Your task to perform on an android device: What is the capital of France? Image 0: 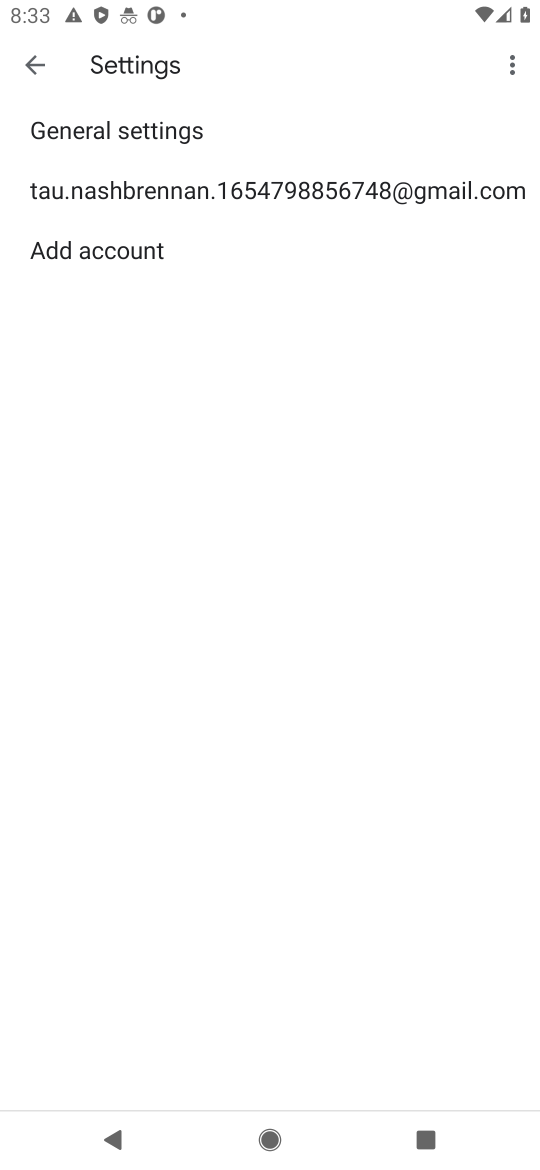
Step 0: press home button
Your task to perform on an android device: What is the capital of France? Image 1: 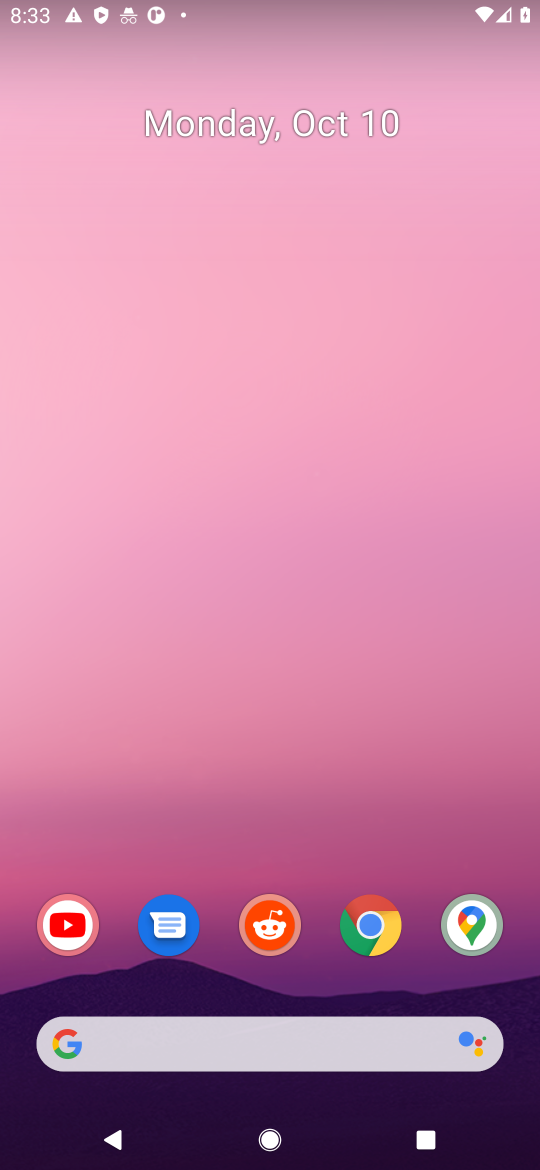
Step 1: drag from (331, 921) to (290, 196)
Your task to perform on an android device: What is the capital of France? Image 2: 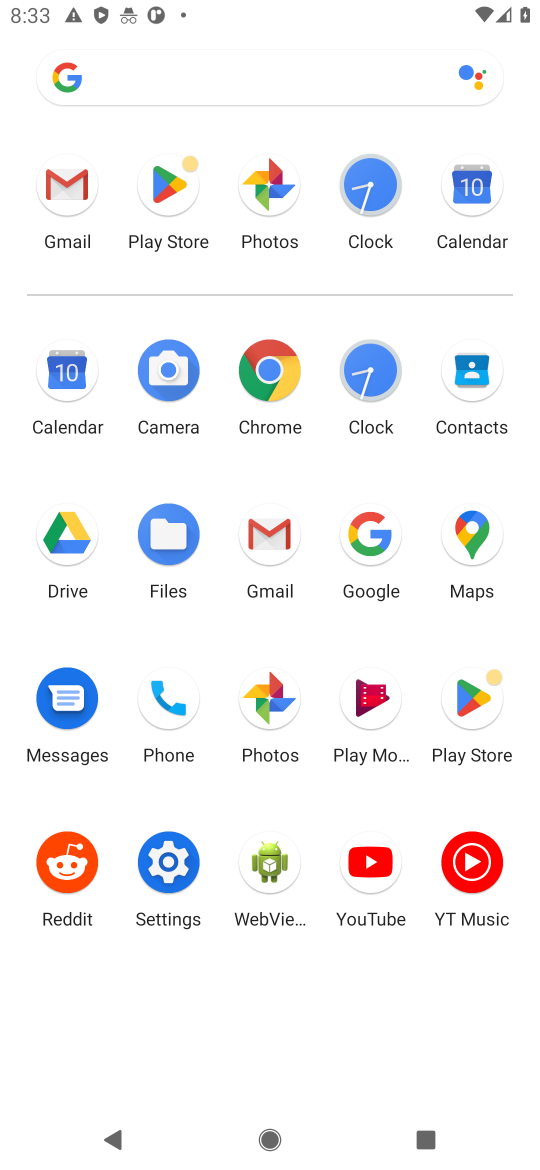
Step 2: click (271, 384)
Your task to perform on an android device: What is the capital of France? Image 3: 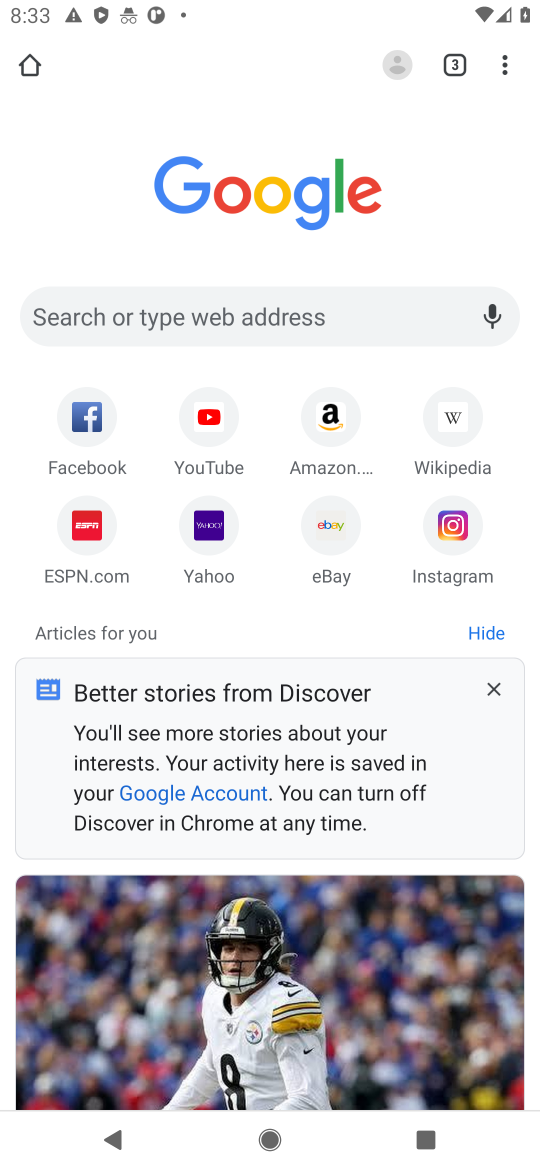
Step 3: click (316, 298)
Your task to perform on an android device: What is the capital of France? Image 4: 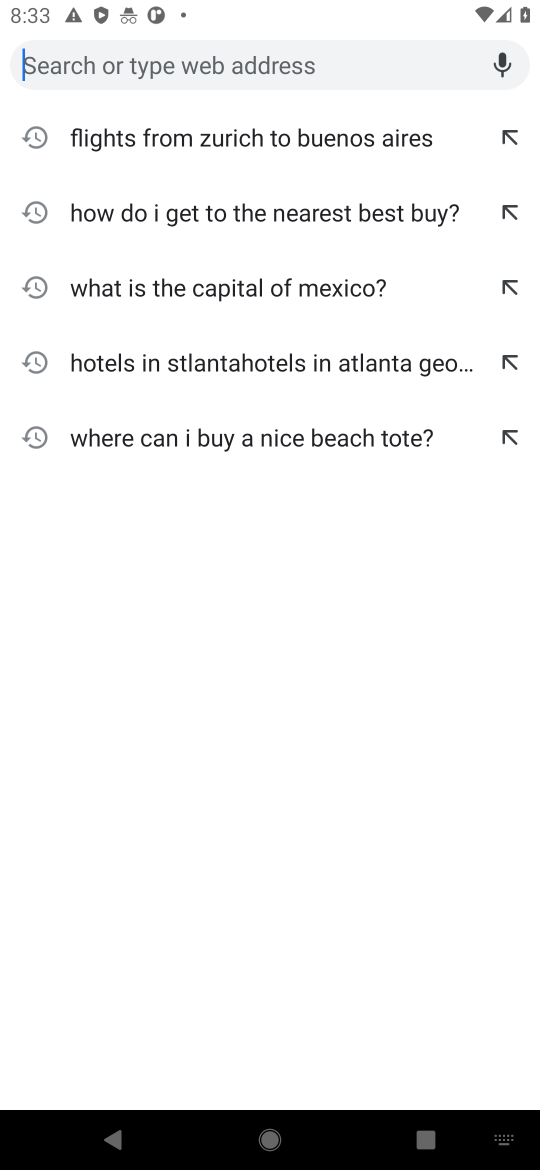
Step 4: type "What is the capital of France?"
Your task to perform on an android device: What is the capital of France? Image 5: 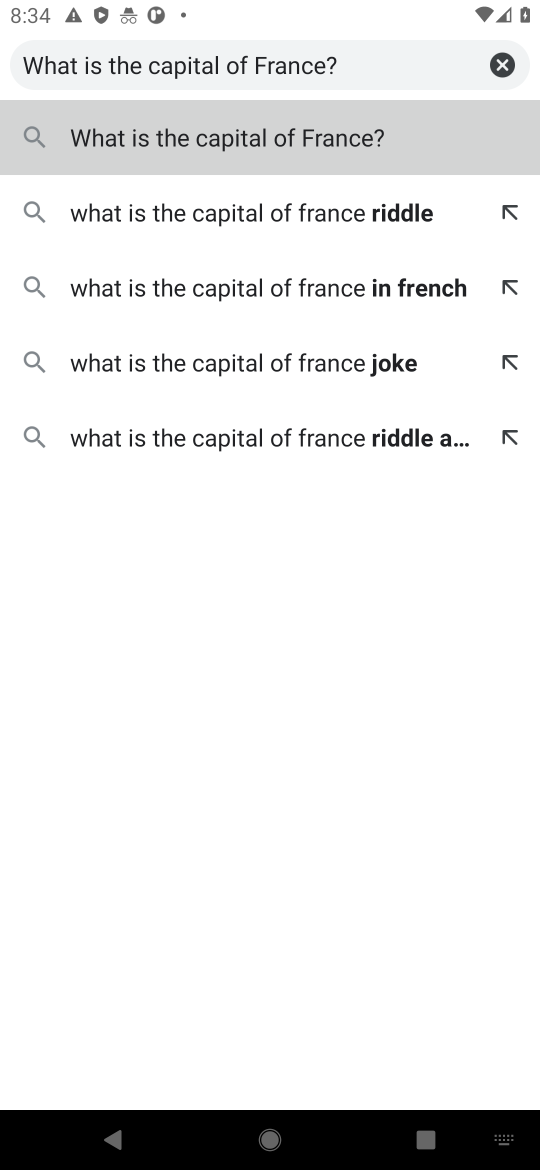
Step 5: press enter
Your task to perform on an android device: What is the capital of France? Image 6: 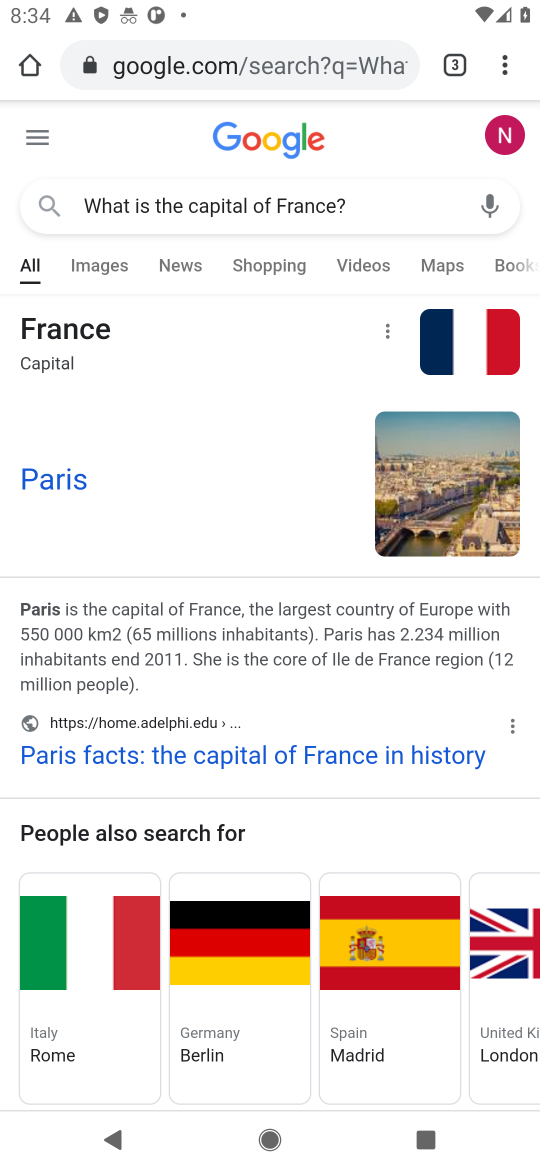
Step 6: task complete